Your task to perform on an android device: turn on javascript in the chrome app Image 0: 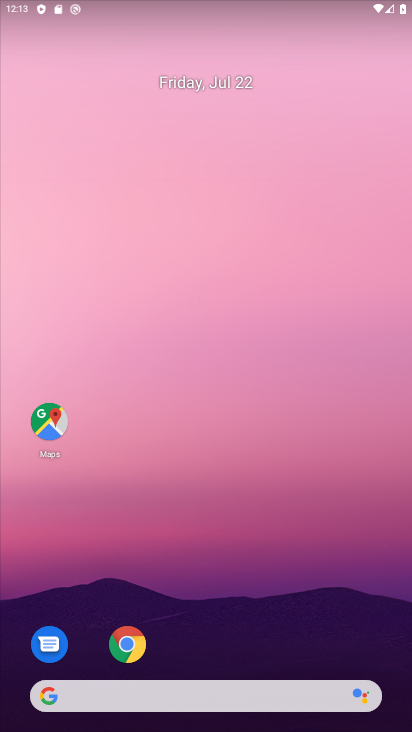
Step 0: drag from (223, 624) to (266, 99)
Your task to perform on an android device: turn on javascript in the chrome app Image 1: 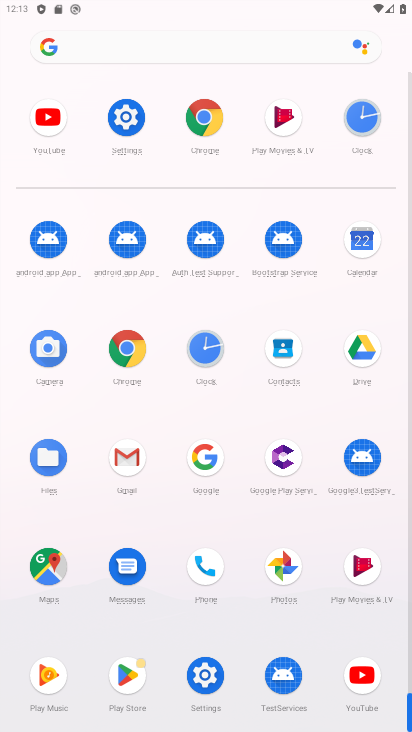
Step 1: click (211, 132)
Your task to perform on an android device: turn on javascript in the chrome app Image 2: 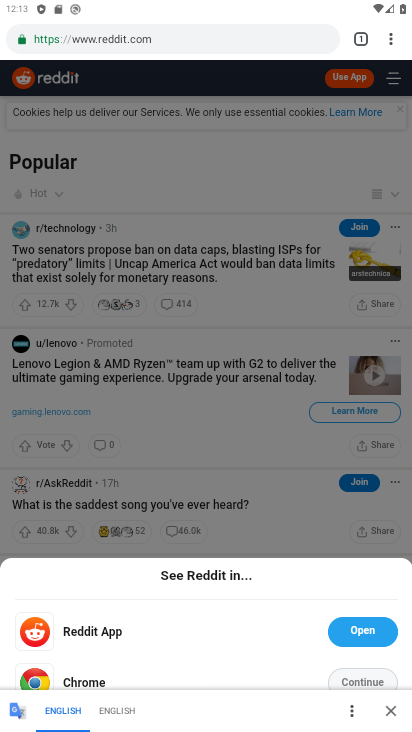
Step 2: click (393, 37)
Your task to perform on an android device: turn on javascript in the chrome app Image 3: 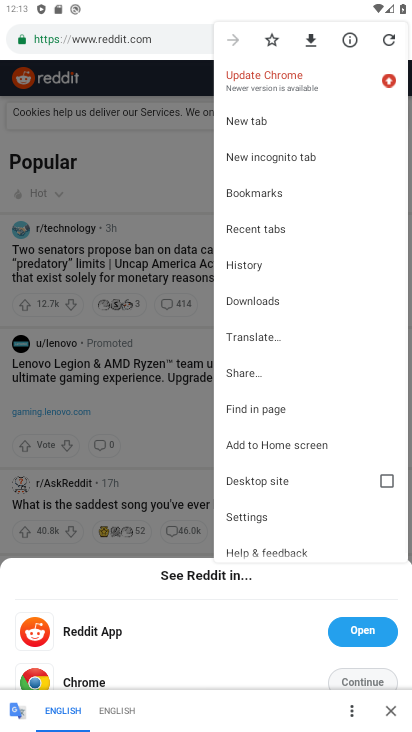
Step 3: click (273, 520)
Your task to perform on an android device: turn on javascript in the chrome app Image 4: 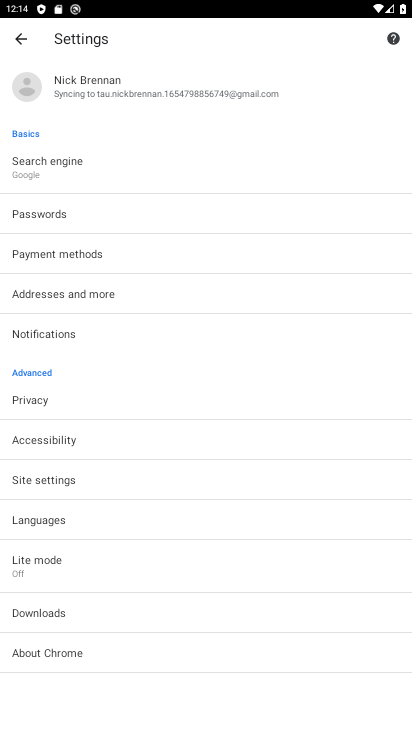
Step 4: click (84, 488)
Your task to perform on an android device: turn on javascript in the chrome app Image 5: 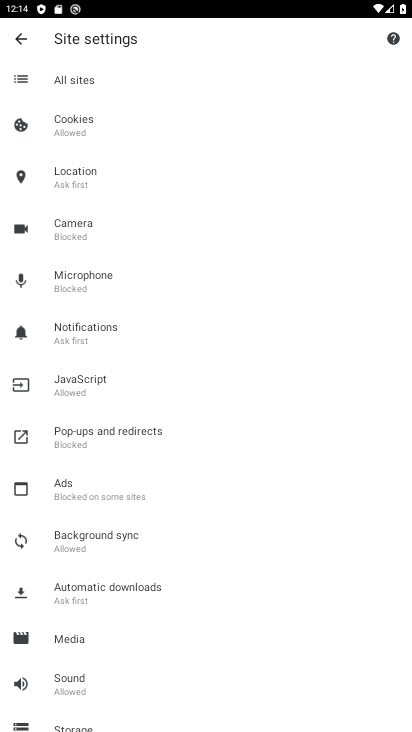
Step 5: click (103, 383)
Your task to perform on an android device: turn on javascript in the chrome app Image 6: 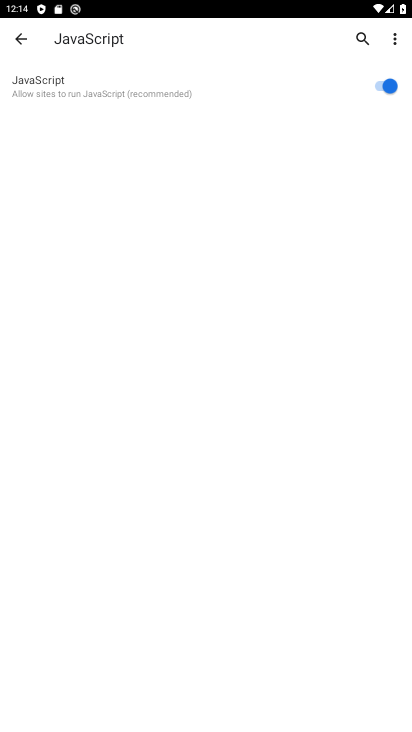
Step 6: task complete